Your task to perform on an android device: turn on the 24-hour format for clock Image 0: 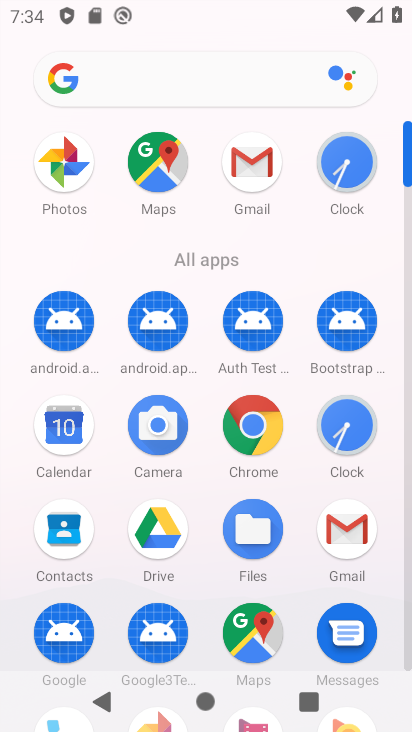
Step 0: click (344, 158)
Your task to perform on an android device: turn on the 24-hour format for clock Image 1: 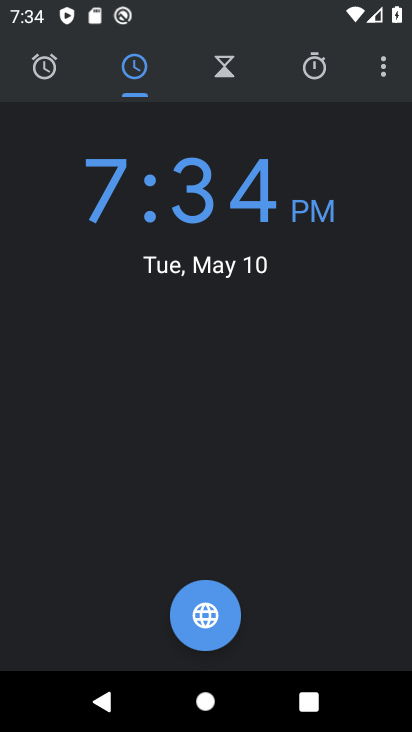
Step 1: click (380, 62)
Your task to perform on an android device: turn on the 24-hour format for clock Image 2: 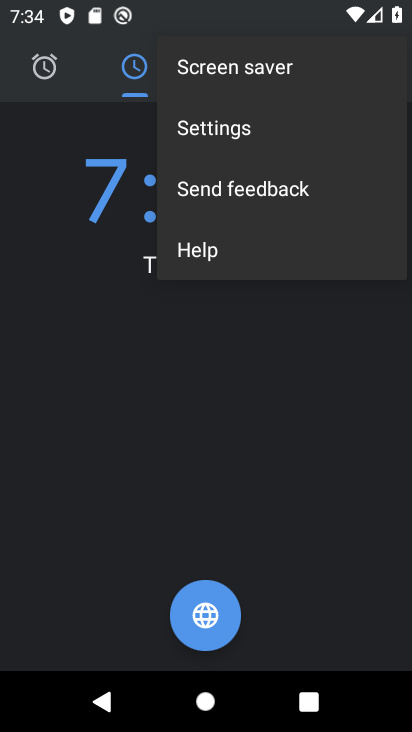
Step 2: click (295, 130)
Your task to perform on an android device: turn on the 24-hour format for clock Image 3: 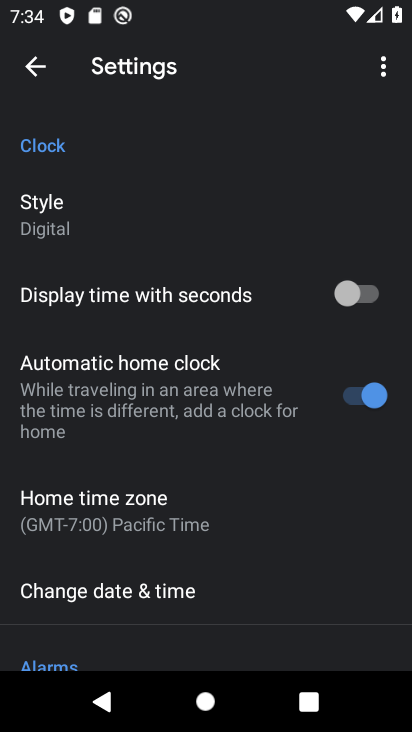
Step 3: click (227, 597)
Your task to perform on an android device: turn on the 24-hour format for clock Image 4: 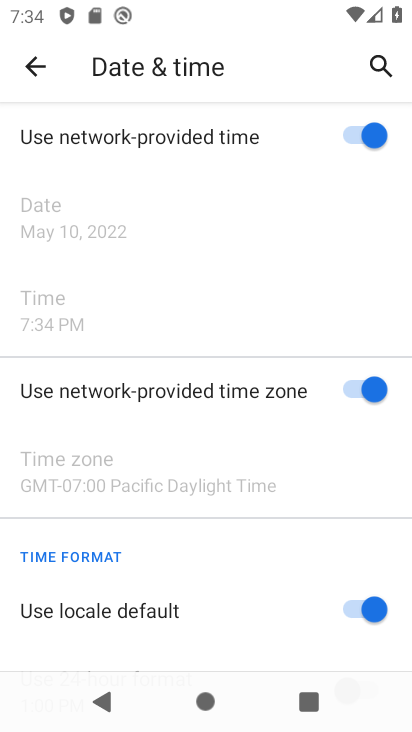
Step 4: drag from (263, 573) to (260, 299)
Your task to perform on an android device: turn on the 24-hour format for clock Image 5: 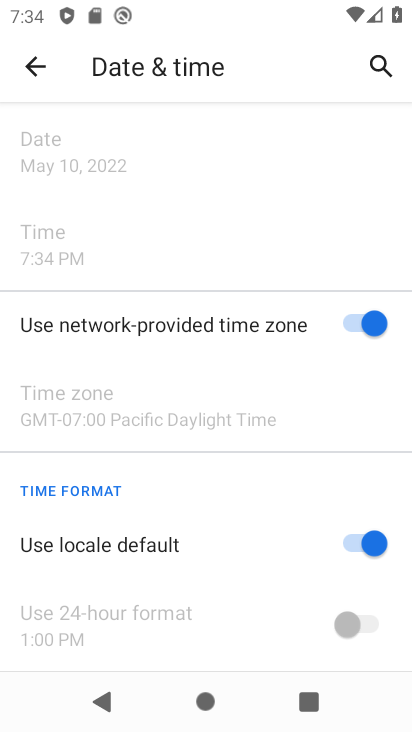
Step 5: click (353, 537)
Your task to perform on an android device: turn on the 24-hour format for clock Image 6: 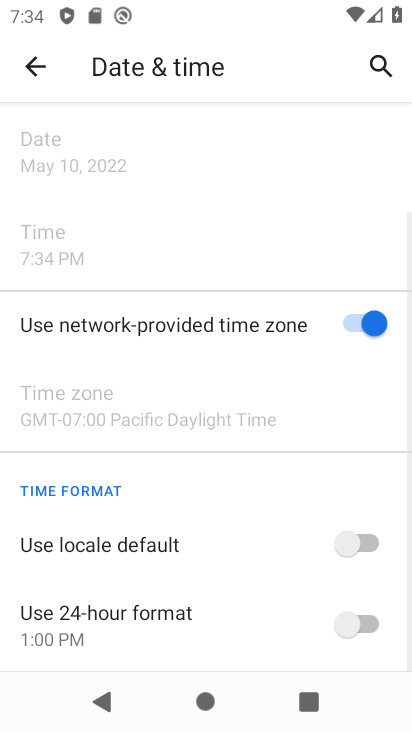
Step 6: click (366, 620)
Your task to perform on an android device: turn on the 24-hour format for clock Image 7: 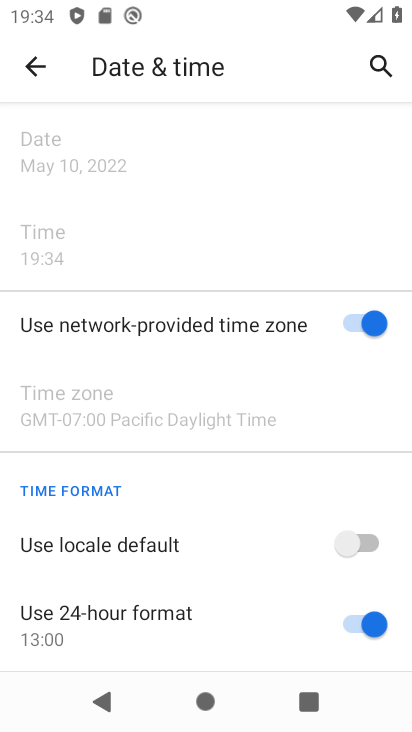
Step 7: task complete